Your task to perform on an android device: turn off notifications in google photos Image 0: 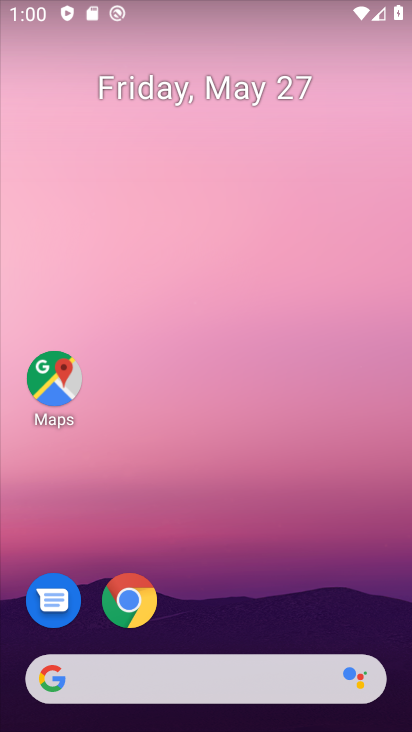
Step 0: drag from (216, 724) to (208, 0)
Your task to perform on an android device: turn off notifications in google photos Image 1: 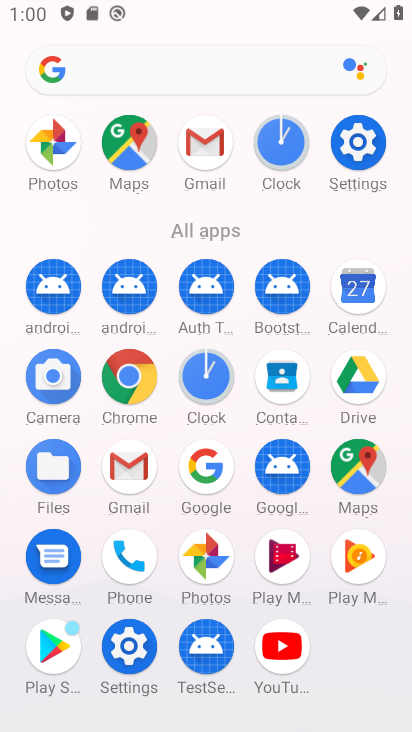
Step 1: click (211, 559)
Your task to perform on an android device: turn off notifications in google photos Image 2: 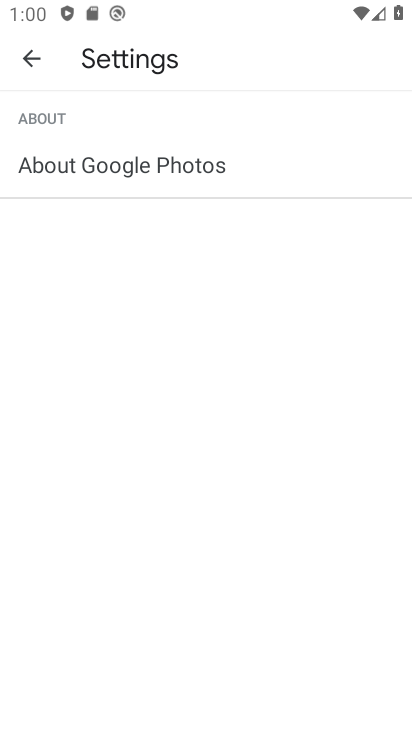
Step 2: click (33, 53)
Your task to perform on an android device: turn off notifications in google photos Image 3: 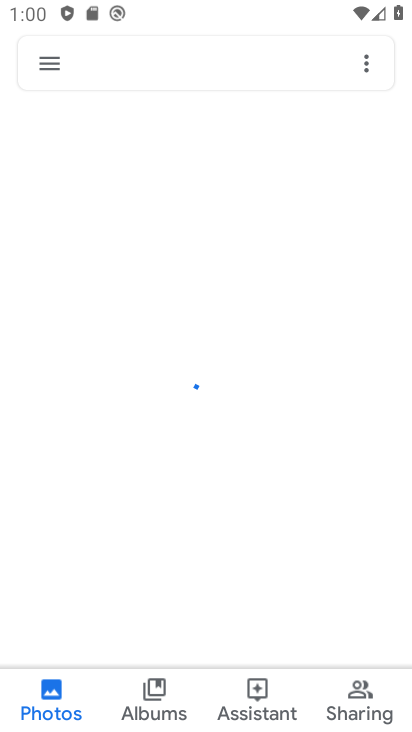
Step 3: click (47, 59)
Your task to perform on an android device: turn off notifications in google photos Image 4: 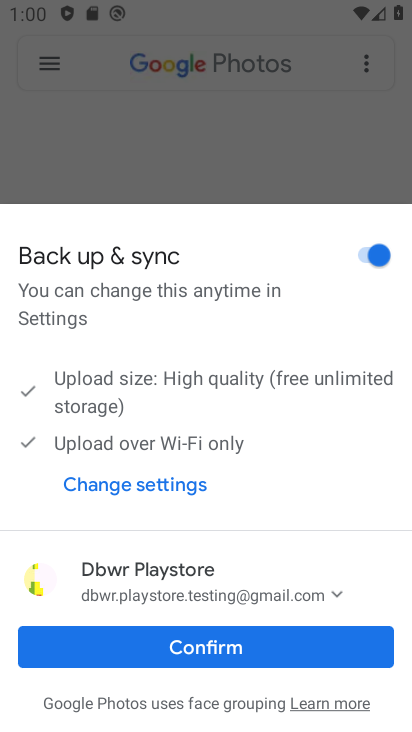
Step 4: click (225, 649)
Your task to perform on an android device: turn off notifications in google photos Image 5: 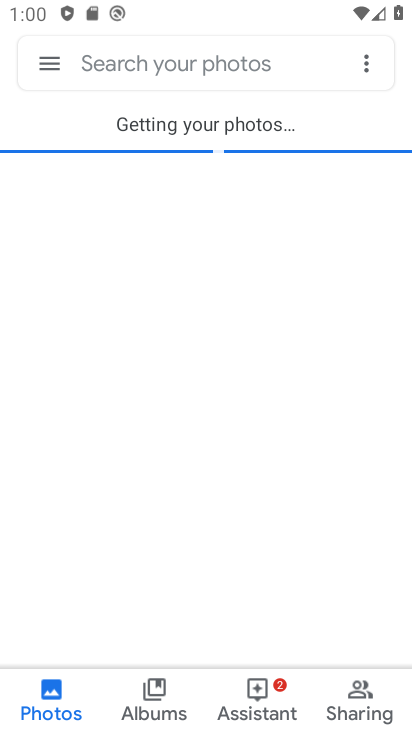
Step 5: click (53, 60)
Your task to perform on an android device: turn off notifications in google photos Image 6: 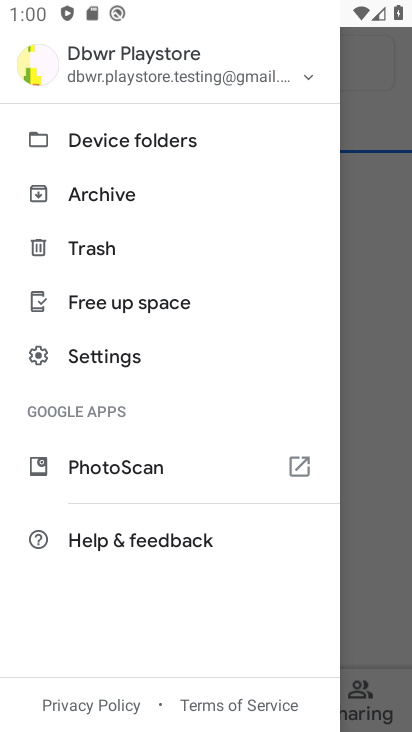
Step 6: click (129, 352)
Your task to perform on an android device: turn off notifications in google photos Image 7: 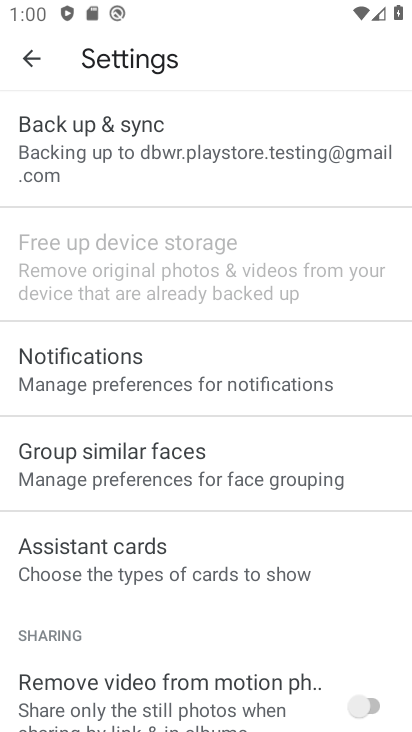
Step 7: click (126, 360)
Your task to perform on an android device: turn off notifications in google photos Image 8: 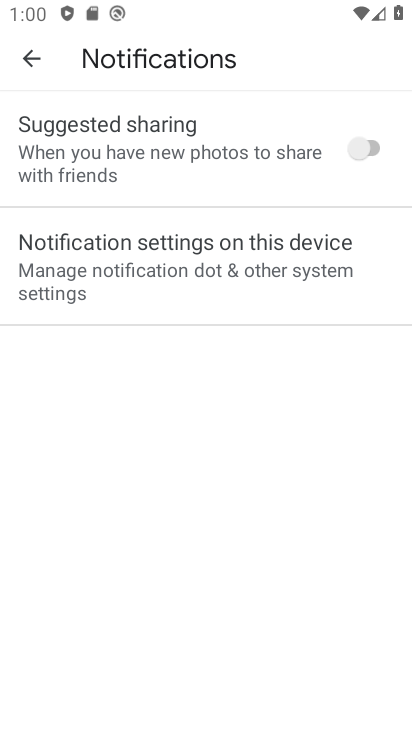
Step 8: click (169, 268)
Your task to perform on an android device: turn off notifications in google photos Image 9: 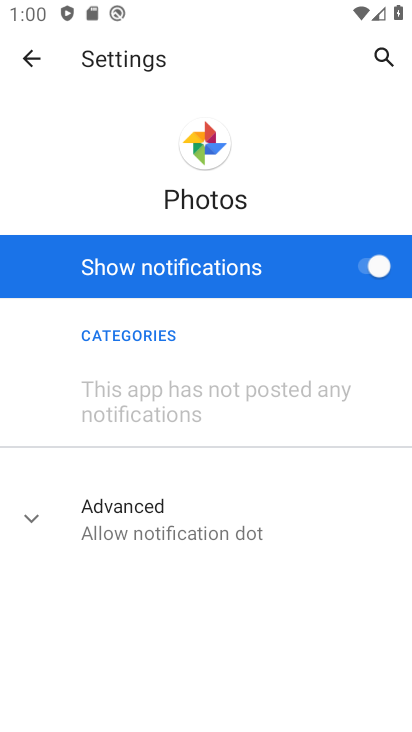
Step 9: click (365, 267)
Your task to perform on an android device: turn off notifications in google photos Image 10: 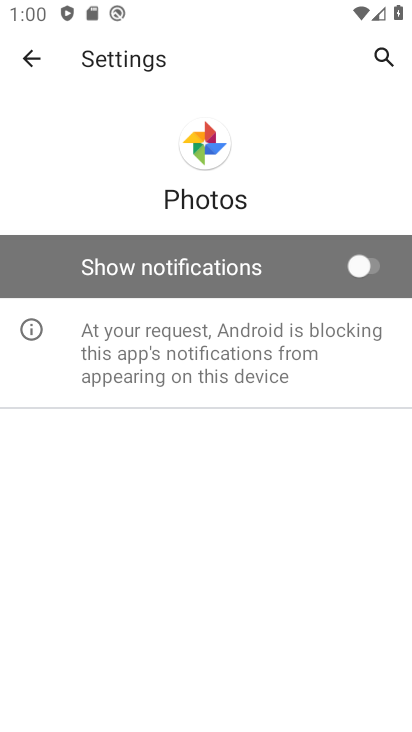
Step 10: task complete